Your task to perform on an android device: turn off airplane mode Image 0: 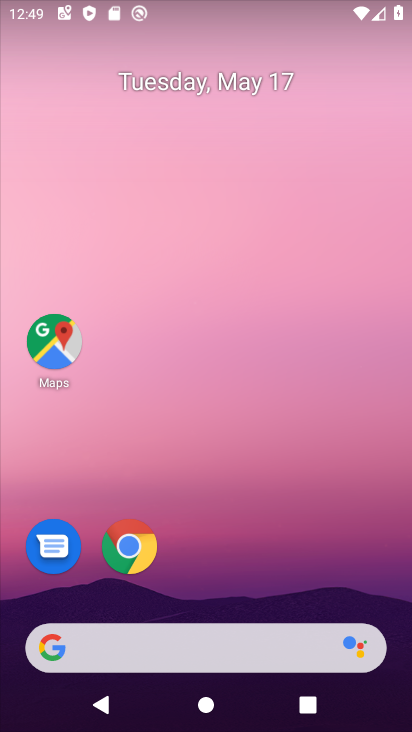
Step 0: drag from (403, 639) to (359, 118)
Your task to perform on an android device: turn off airplane mode Image 1: 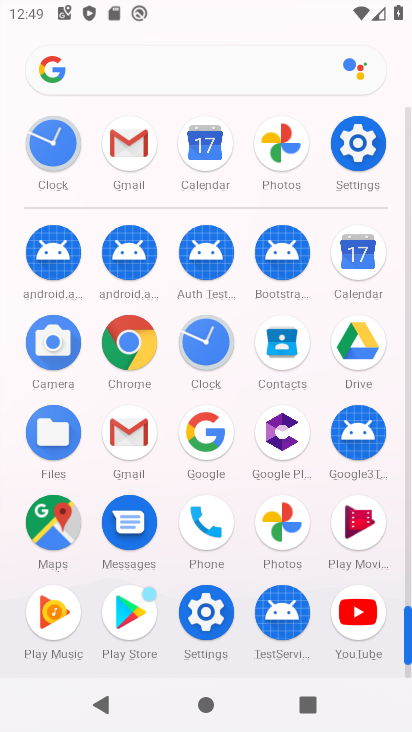
Step 1: click (409, 675)
Your task to perform on an android device: turn off airplane mode Image 2: 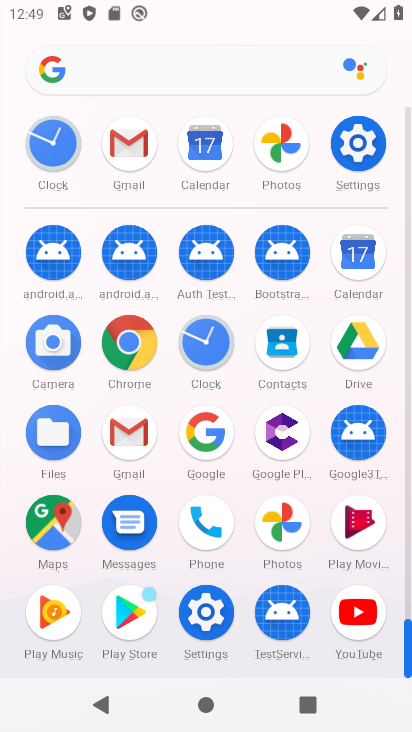
Step 2: click (215, 611)
Your task to perform on an android device: turn off airplane mode Image 3: 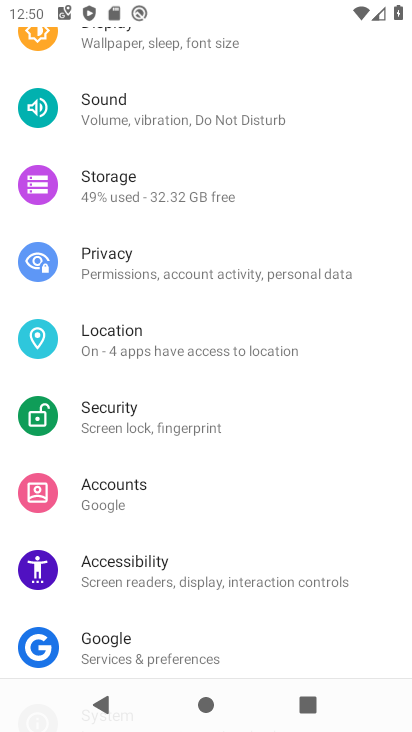
Step 3: drag from (321, 189) to (369, 730)
Your task to perform on an android device: turn off airplane mode Image 4: 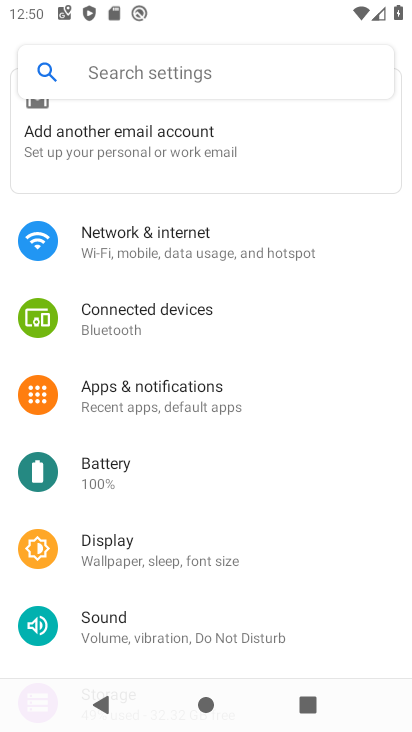
Step 4: click (169, 224)
Your task to perform on an android device: turn off airplane mode Image 5: 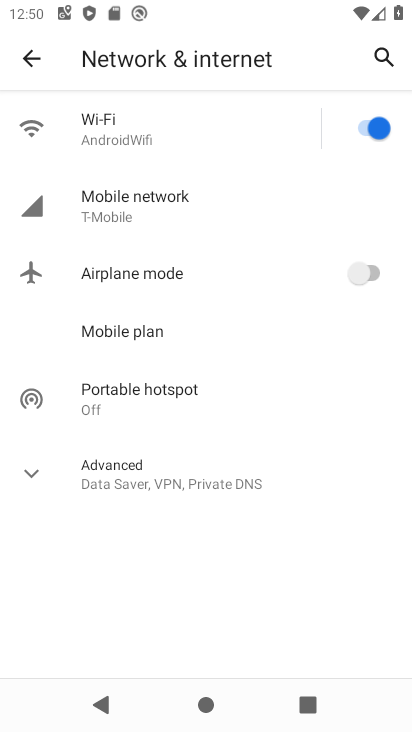
Step 5: task complete